Your task to perform on an android device: delete location history Image 0: 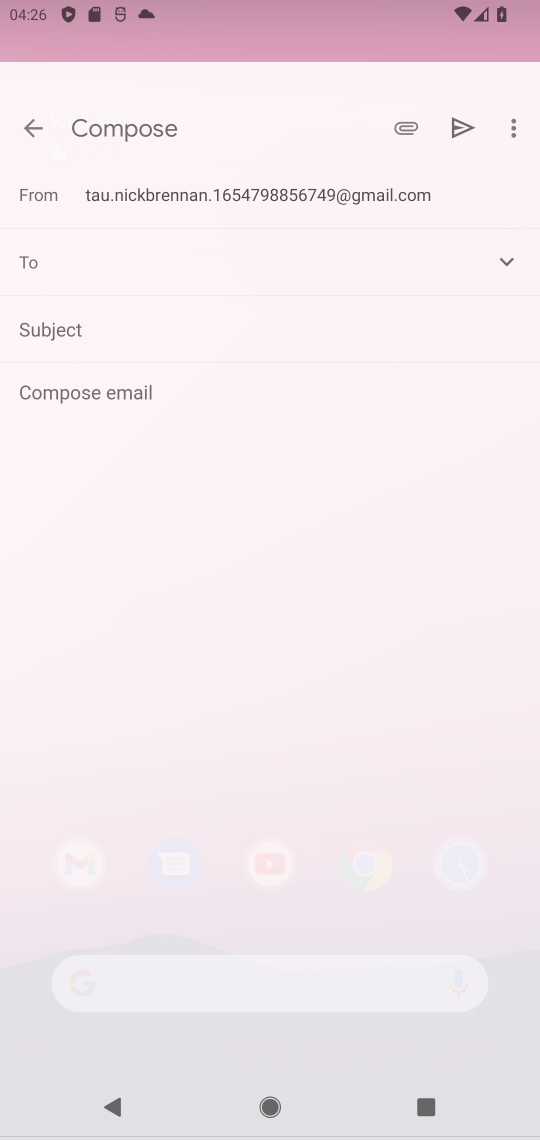
Step 0: press home button
Your task to perform on an android device: delete location history Image 1: 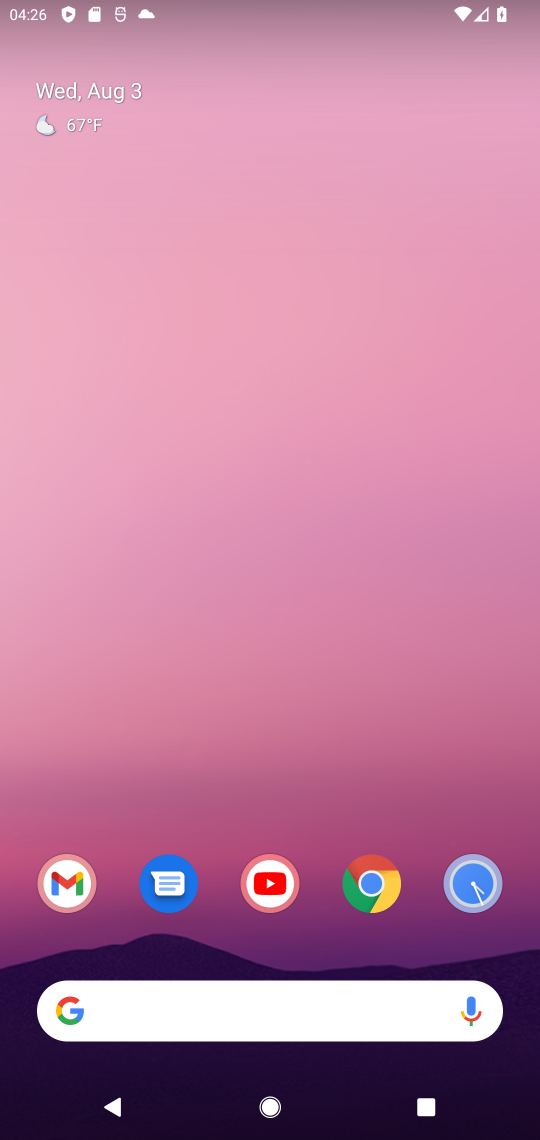
Step 1: drag from (266, 945) to (304, 23)
Your task to perform on an android device: delete location history Image 2: 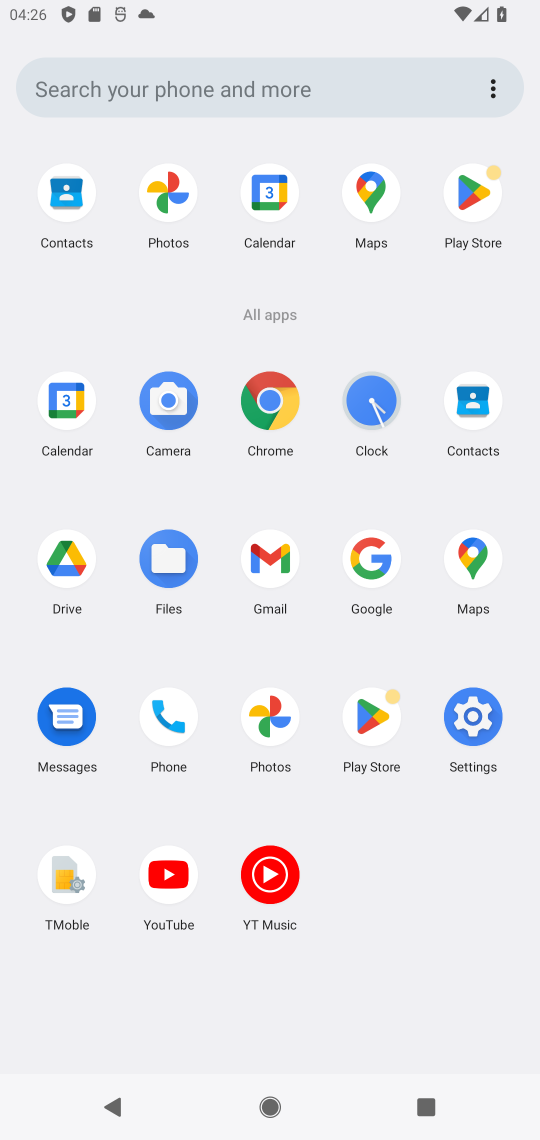
Step 2: click (458, 562)
Your task to perform on an android device: delete location history Image 3: 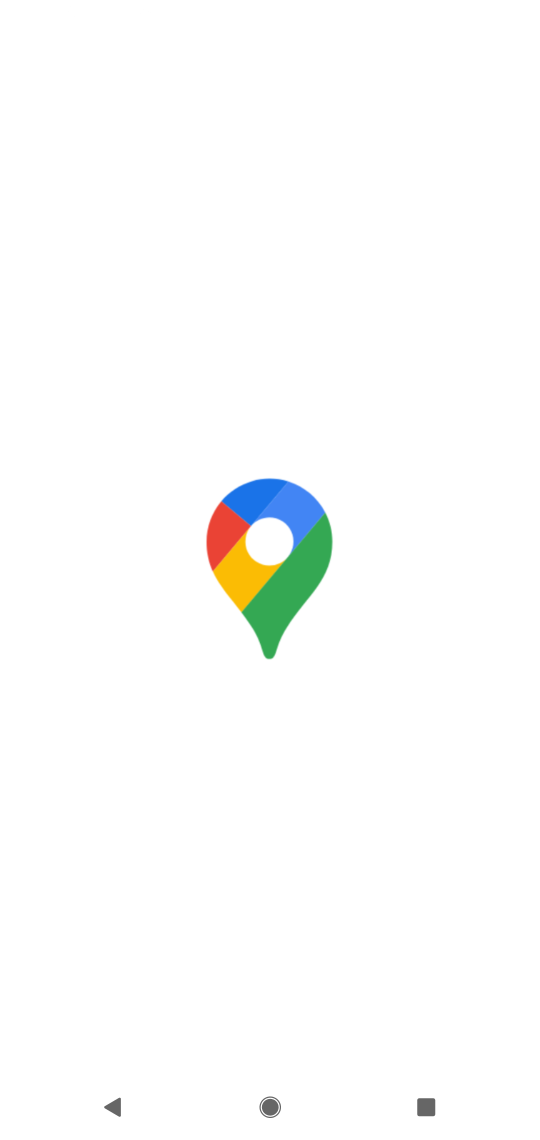
Step 3: click (440, 558)
Your task to perform on an android device: delete location history Image 4: 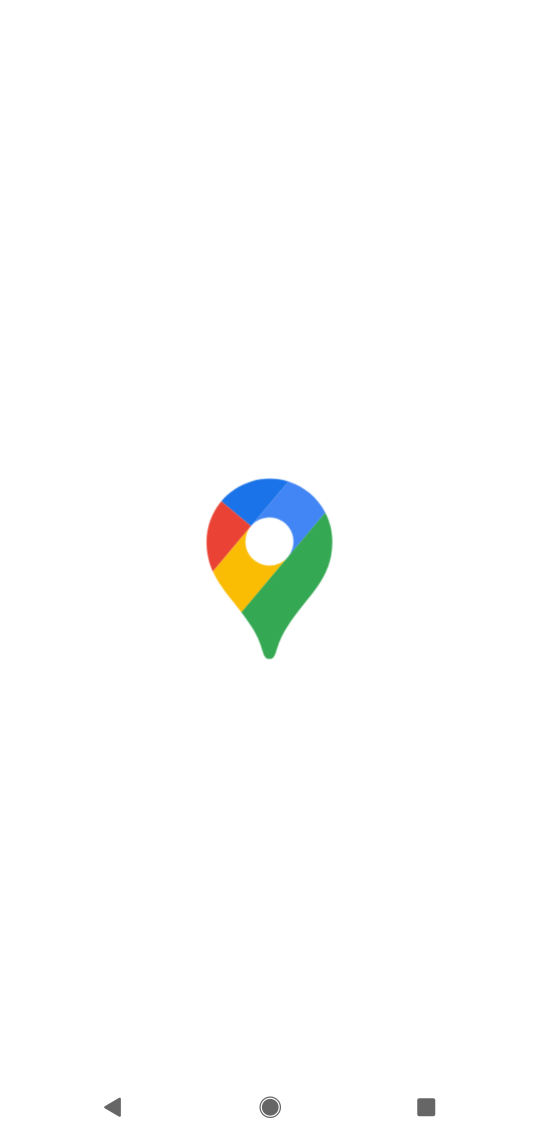
Step 4: click (268, 669)
Your task to perform on an android device: delete location history Image 5: 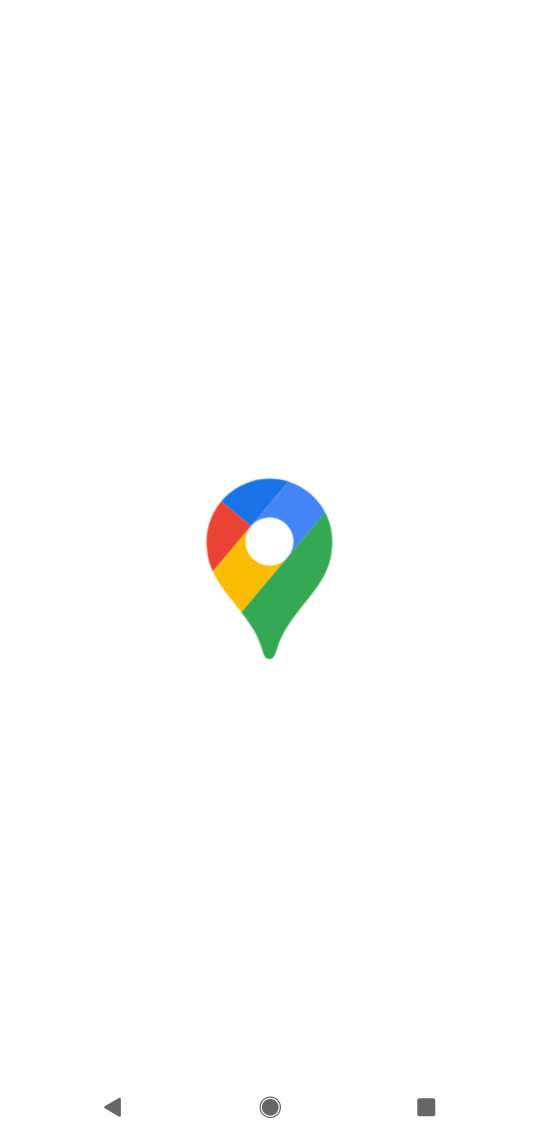
Step 5: click (286, 534)
Your task to perform on an android device: delete location history Image 6: 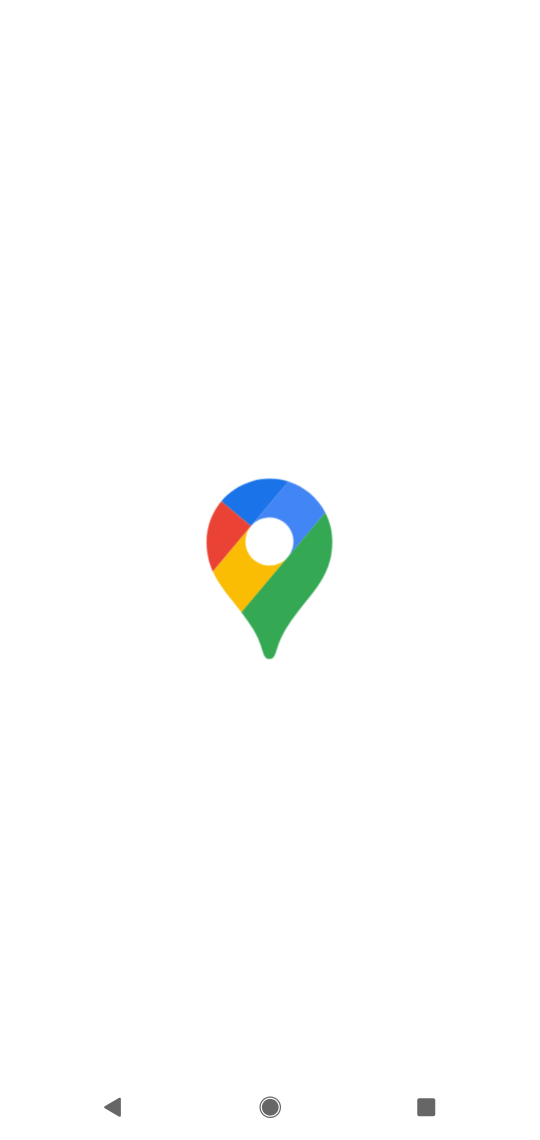
Step 6: click (324, 692)
Your task to perform on an android device: delete location history Image 7: 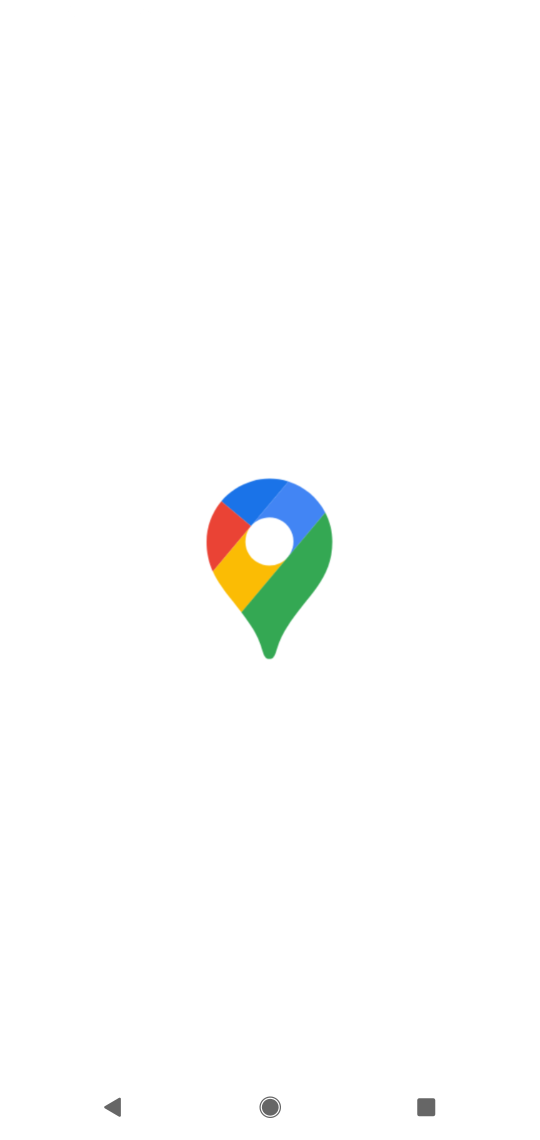
Step 7: task complete